Your task to perform on an android device: Go to sound settings Image 0: 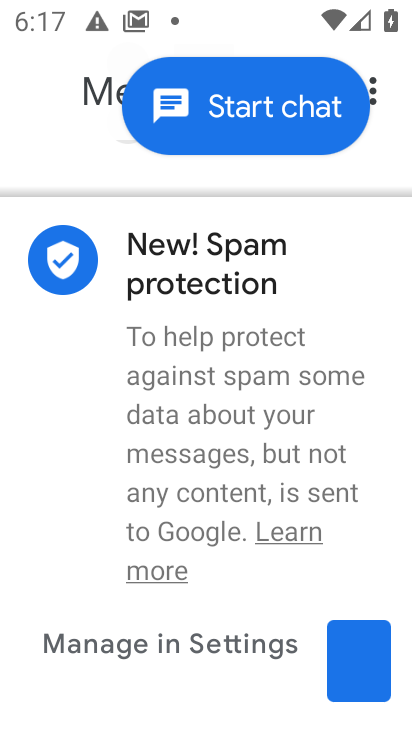
Step 0: press home button
Your task to perform on an android device: Go to sound settings Image 1: 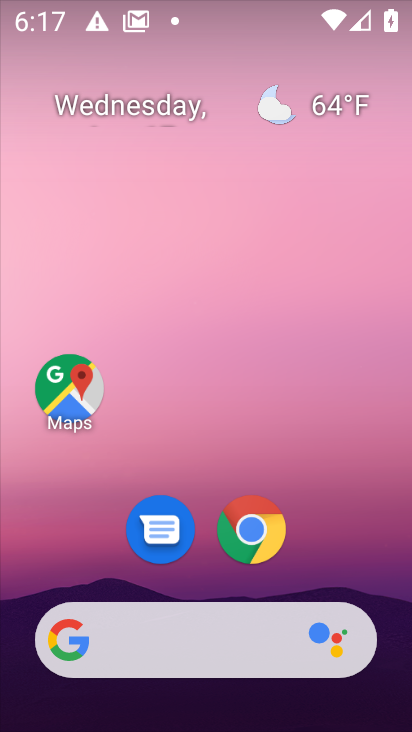
Step 1: drag from (206, 559) to (197, 170)
Your task to perform on an android device: Go to sound settings Image 2: 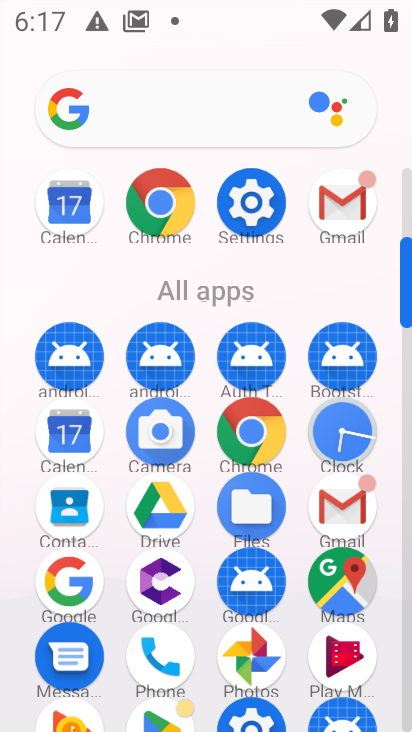
Step 2: click (254, 199)
Your task to perform on an android device: Go to sound settings Image 3: 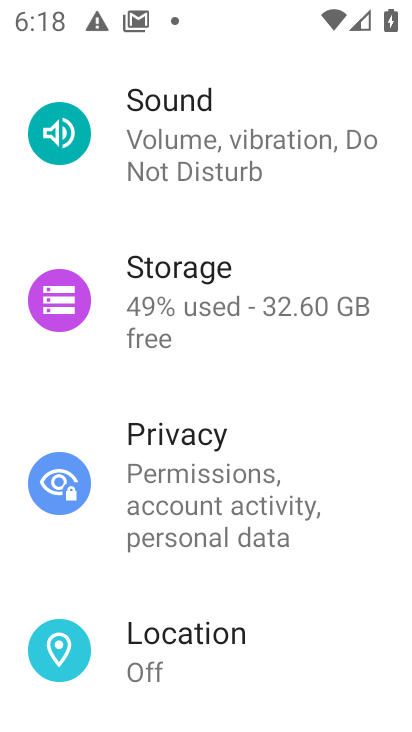
Step 3: drag from (196, 247) to (218, 479)
Your task to perform on an android device: Go to sound settings Image 4: 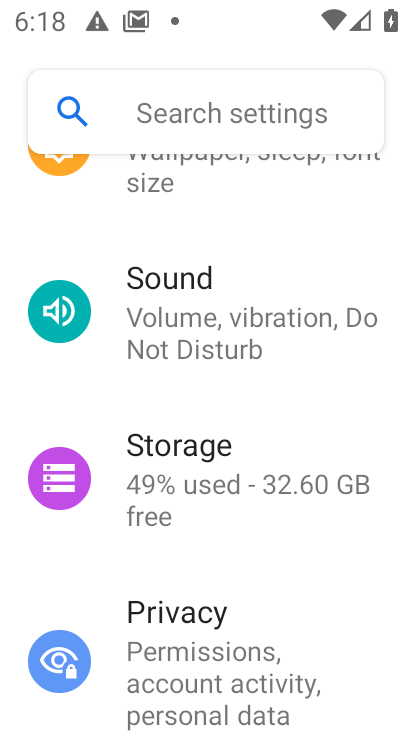
Step 4: click (168, 334)
Your task to perform on an android device: Go to sound settings Image 5: 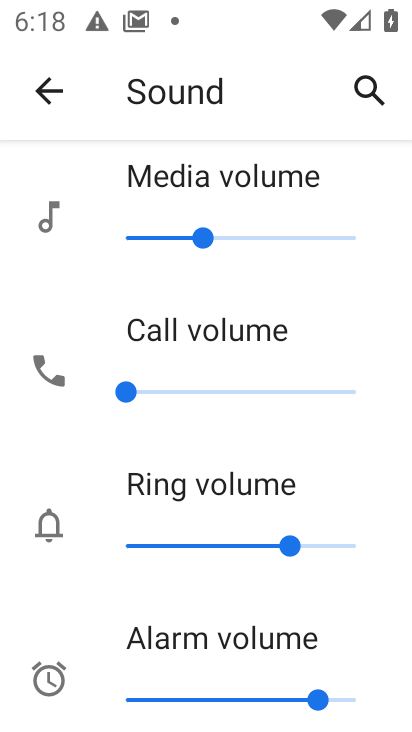
Step 5: task complete